Your task to perform on an android device: change notifications settings Image 0: 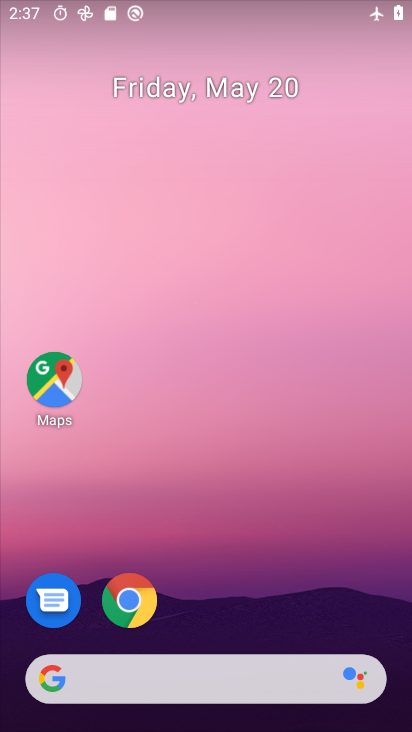
Step 0: drag from (302, 559) to (231, 140)
Your task to perform on an android device: change notifications settings Image 1: 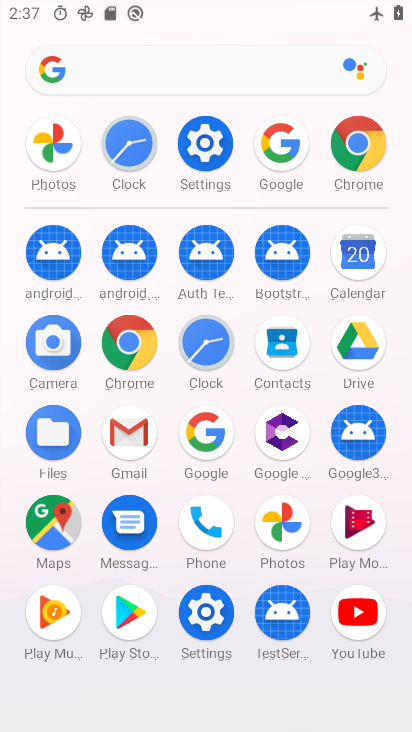
Step 1: click (213, 144)
Your task to perform on an android device: change notifications settings Image 2: 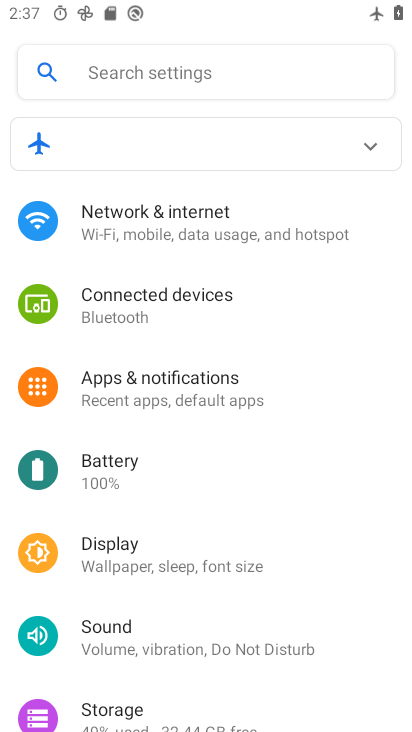
Step 2: click (220, 408)
Your task to perform on an android device: change notifications settings Image 3: 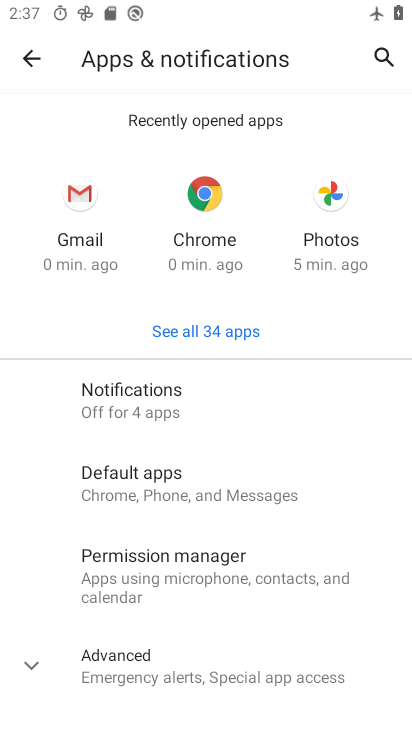
Step 3: click (231, 421)
Your task to perform on an android device: change notifications settings Image 4: 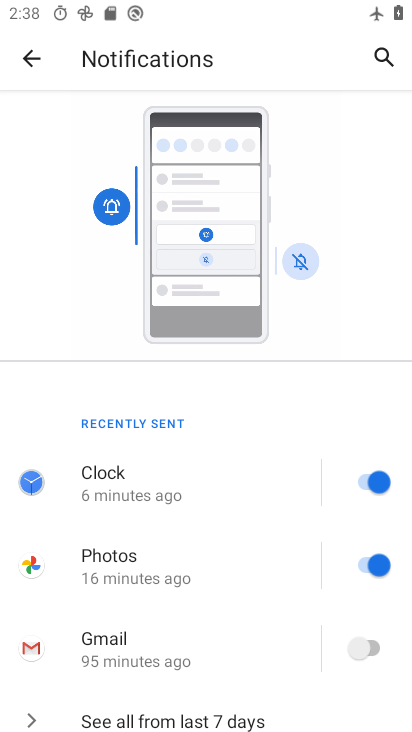
Step 4: click (379, 576)
Your task to perform on an android device: change notifications settings Image 5: 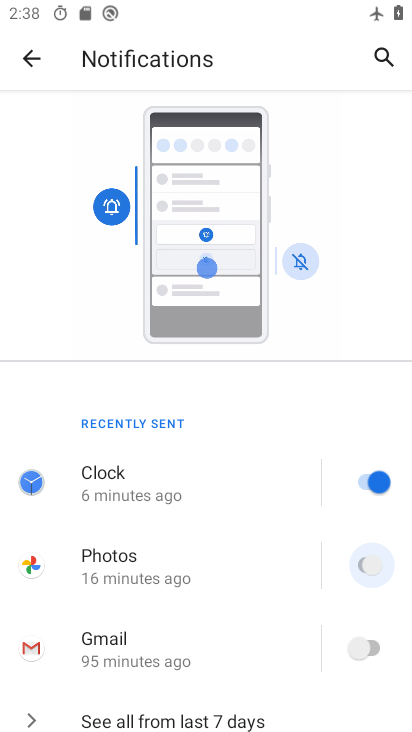
Step 5: click (379, 472)
Your task to perform on an android device: change notifications settings Image 6: 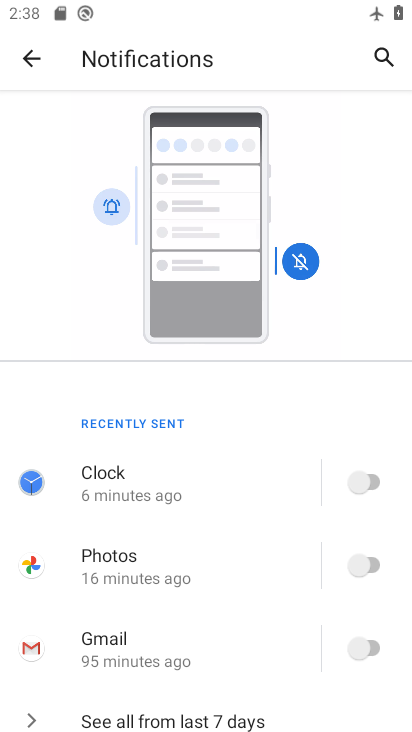
Step 6: click (364, 649)
Your task to perform on an android device: change notifications settings Image 7: 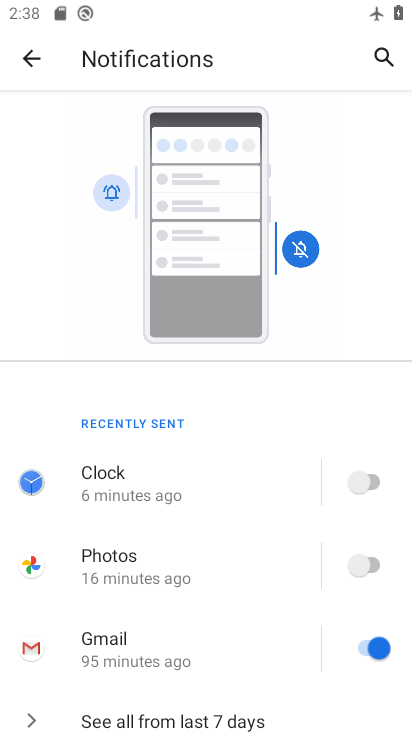
Step 7: task complete